Your task to perform on an android device: Search for sushi restaurants on Maps Image 0: 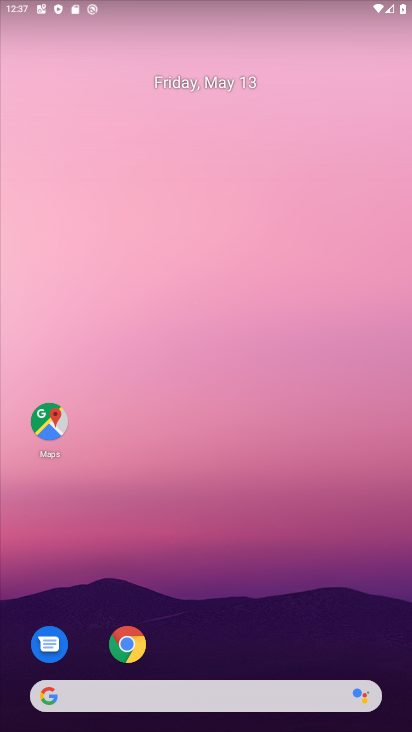
Step 0: click (53, 414)
Your task to perform on an android device: Search for sushi restaurants on Maps Image 1: 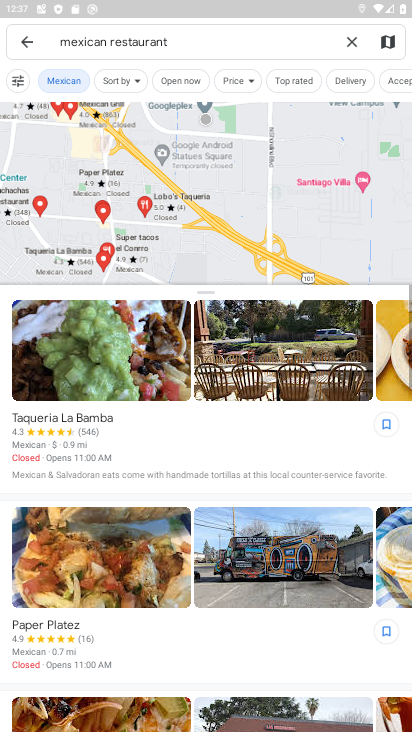
Step 1: click (352, 47)
Your task to perform on an android device: Search for sushi restaurants on Maps Image 2: 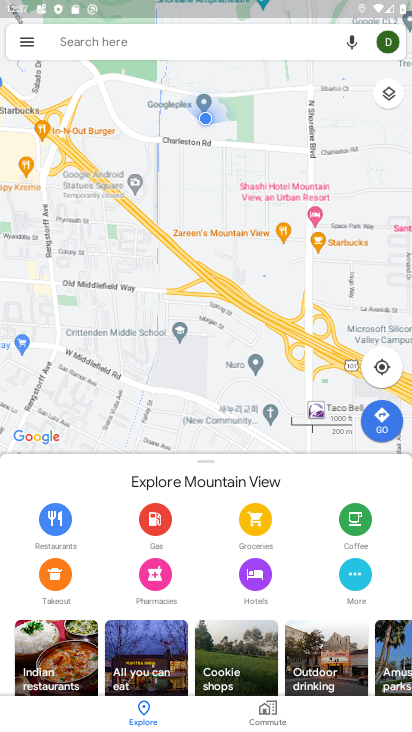
Step 2: click (251, 38)
Your task to perform on an android device: Search for sushi restaurants on Maps Image 3: 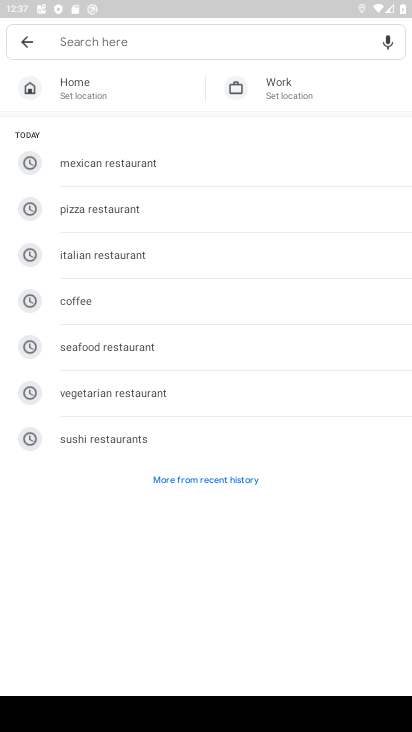
Step 3: click (101, 439)
Your task to perform on an android device: Search for sushi restaurants on Maps Image 4: 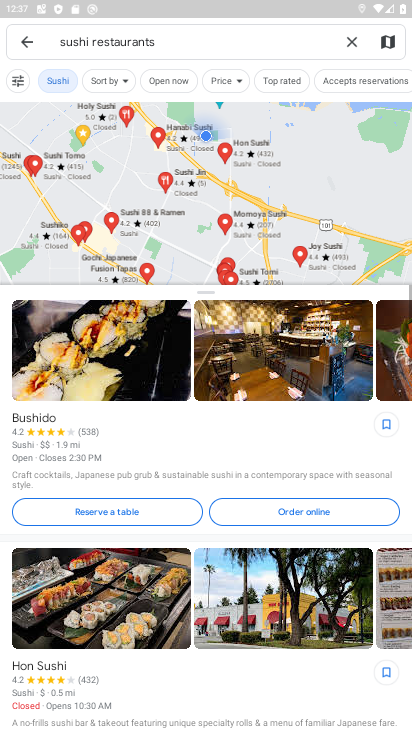
Step 4: task complete